Your task to perform on an android device: Search for pizza restaurants on Maps Image 0: 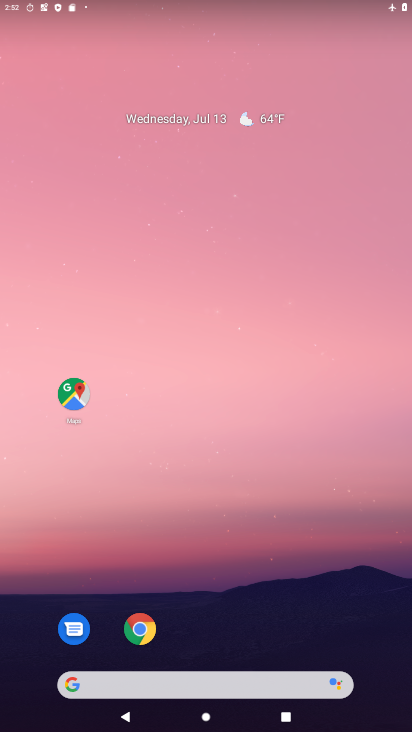
Step 0: drag from (317, 692) to (368, 0)
Your task to perform on an android device: Search for pizza restaurants on Maps Image 1: 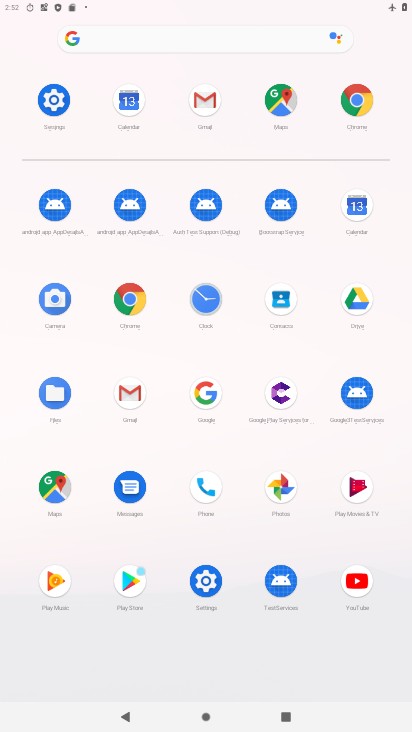
Step 1: click (55, 489)
Your task to perform on an android device: Search for pizza restaurants on Maps Image 2: 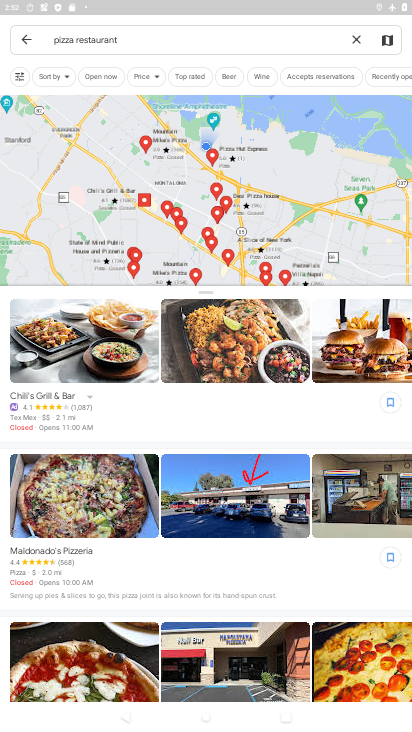
Step 2: task complete